Your task to perform on an android device: toggle airplane mode Image 0: 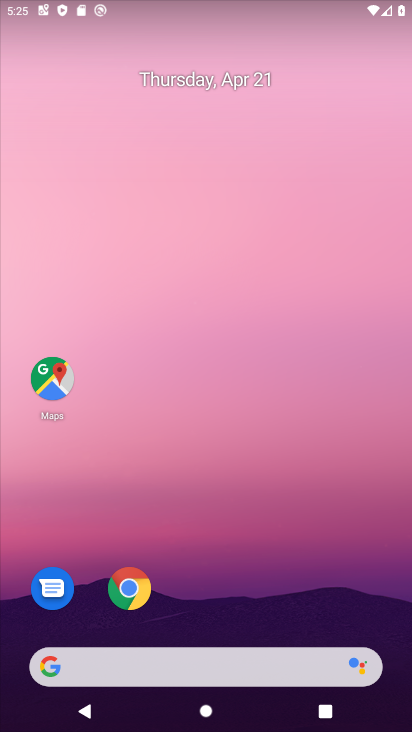
Step 0: drag from (224, 387) to (210, 303)
Your task to perform on an android device: toggle airplane mode Image 1: 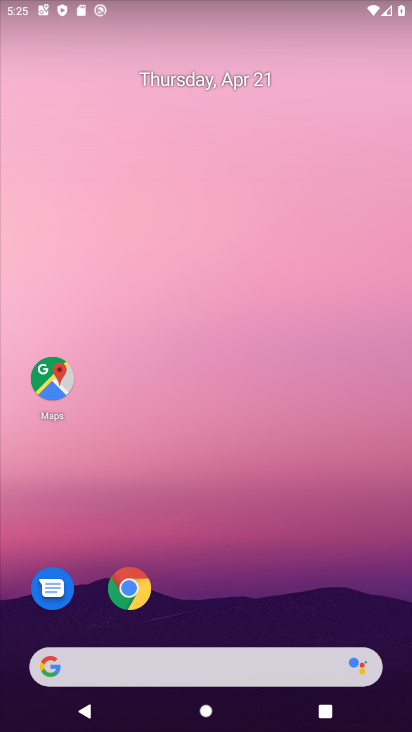
Step 1: drag from (231, 594) to (207, 96)
Your task to perform on an android device: toggle airplane mode Image 2: 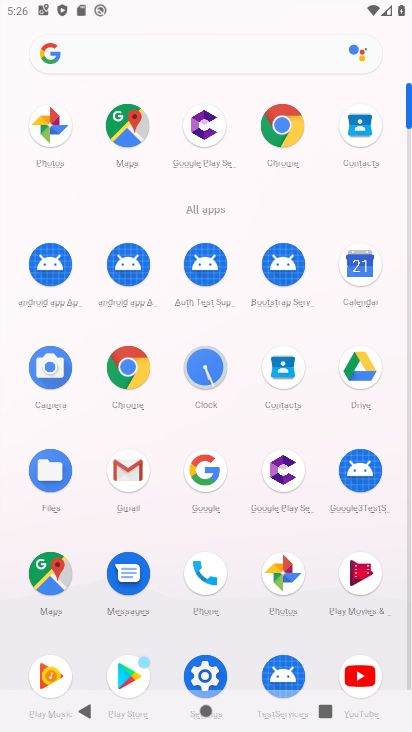
Step 2: click (201, 661)
Your task to perform on an android device: toggle airplane mode Image 3: 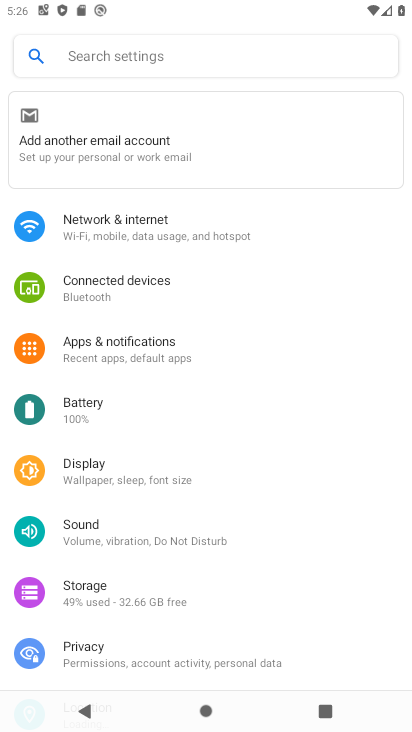
Step 3: click (151, 244)
Your task to perform on an android device: toggle airplane mode Image 4: 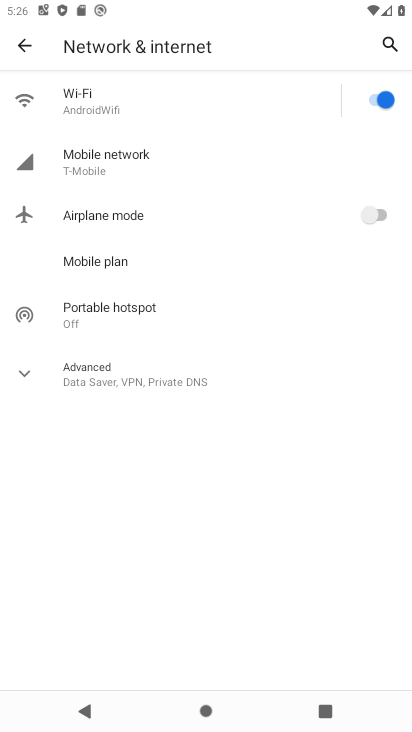
Step 4: click (388, 219)
Your task to perform on an android device: toggle airplane mode Image 5: 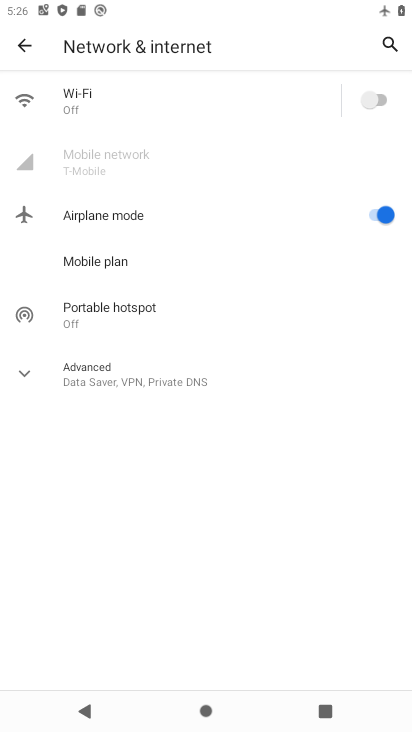
Step 5: task complete